Your task to perform on an android device: Go to accessibility settings Image 0: 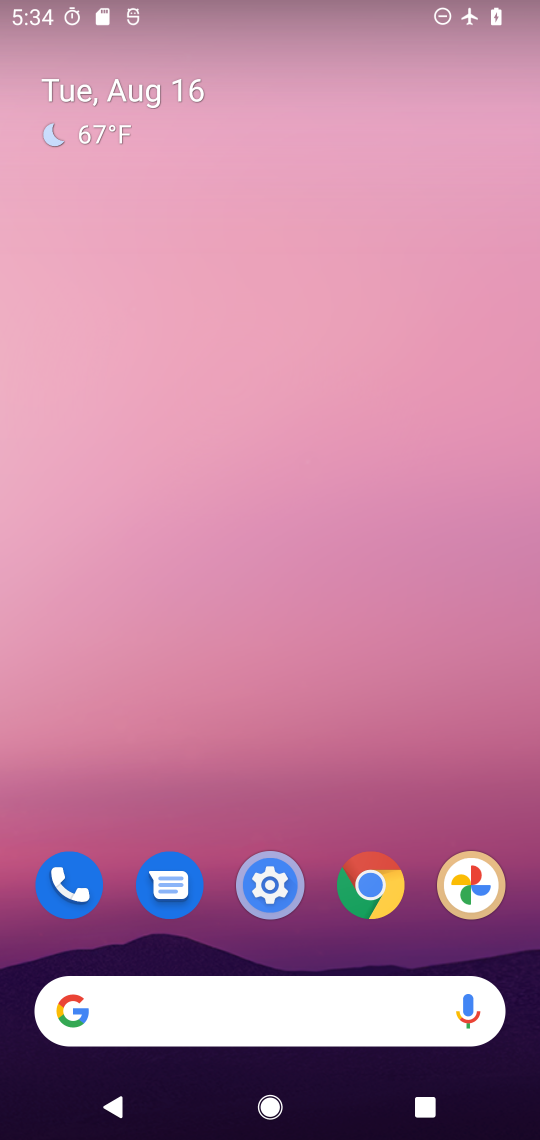
Step 0: drag from (86, 975) to (206, 285)
Your task to perform on an android device: Go to accessibility settings Image 1: 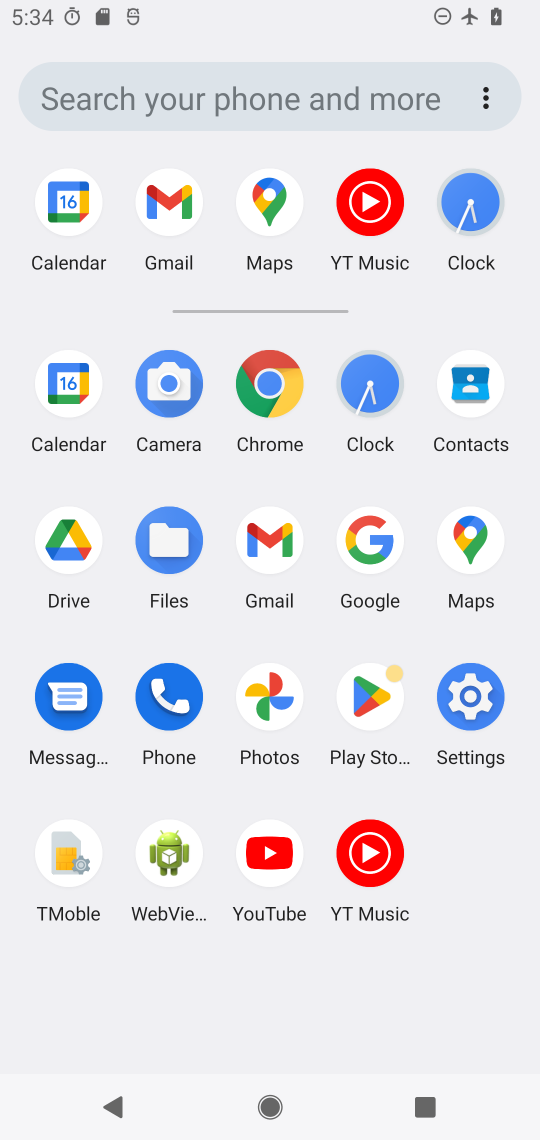
Step 1: click (458, 709)
Your task to perform on an android device: Go to accessibility settings Image 2: 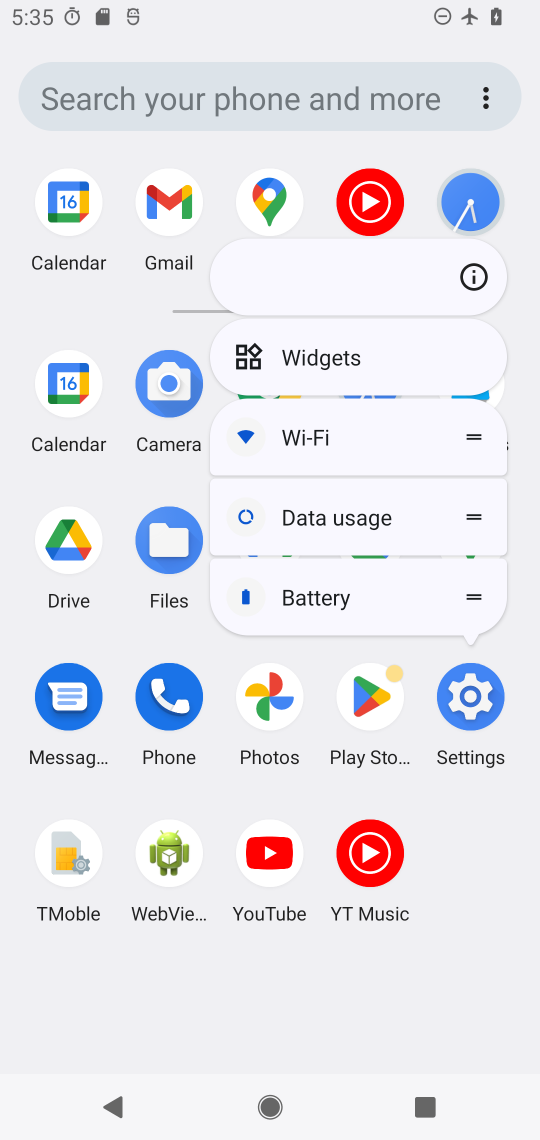
Step 2: click (473, 677)
Your task to perform on an android device: Go to accessibility settings Image 3: 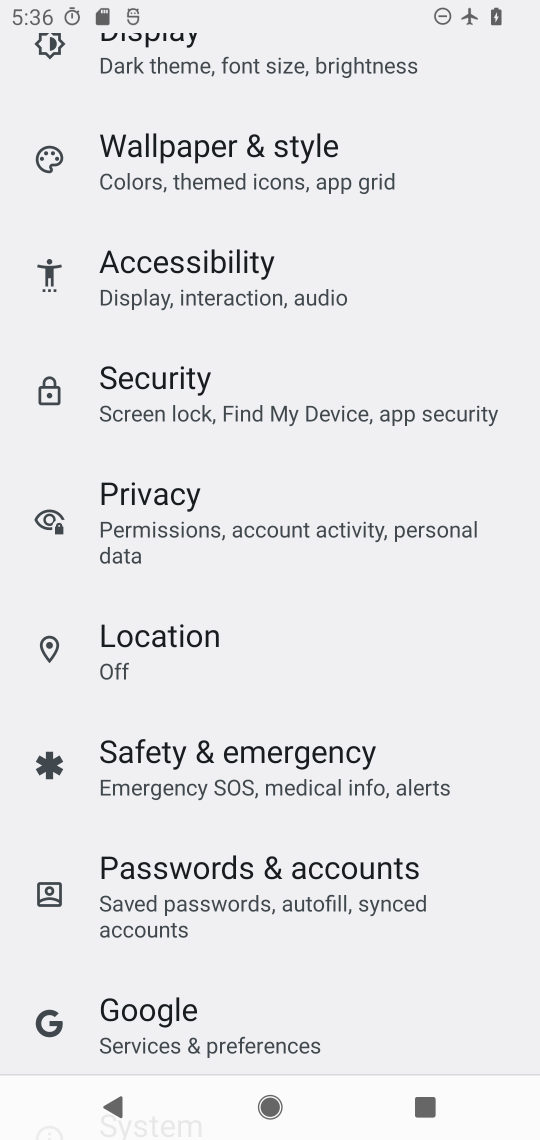
Step 3: drag from (283, 864) to (280, 521)
Your task to perform on an android device: Go to accessibility settings Image 4: 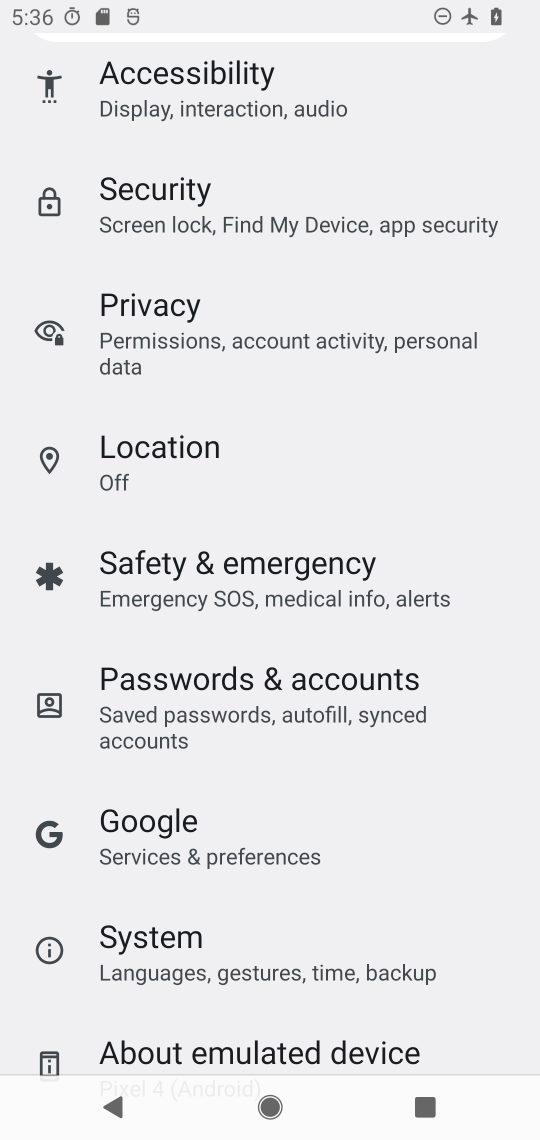
Step 4: click (157, 67)
Your task to perform on an android device: Go to accessibility settings Image 5: 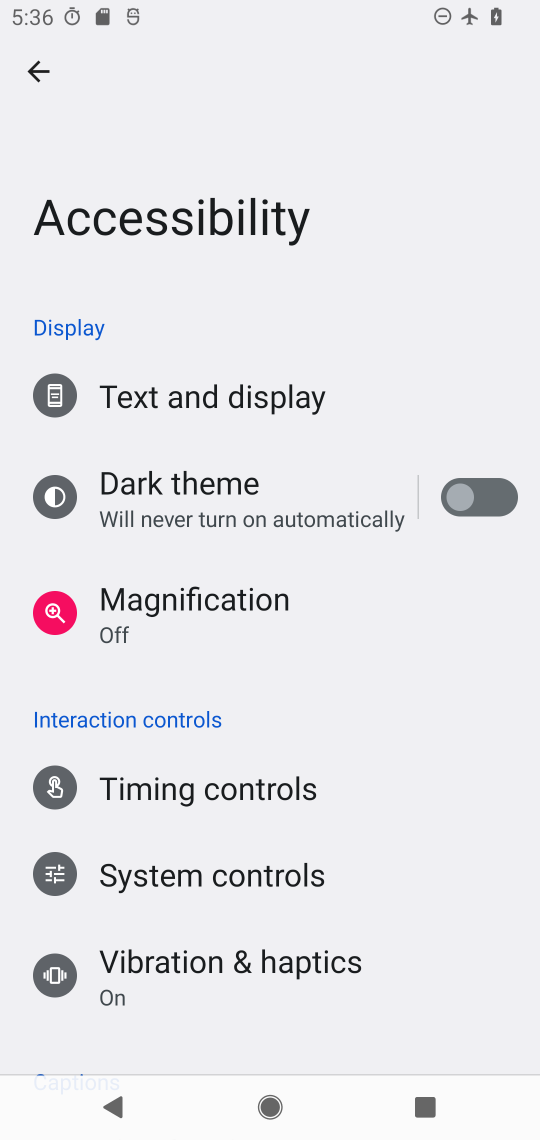
Step 5: task complete